Your task to perform on an android device: Do I have any events today? Image 0: 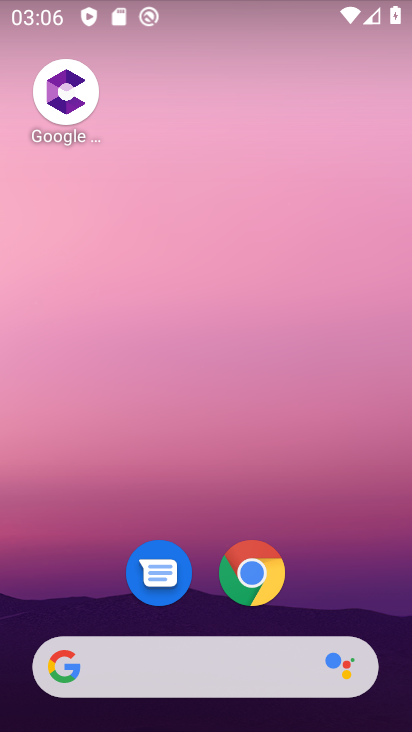
Step 0: drag from (209, 694) to (211, 217)
Your task to perform on an android device: Do I have any events today? Image 1: 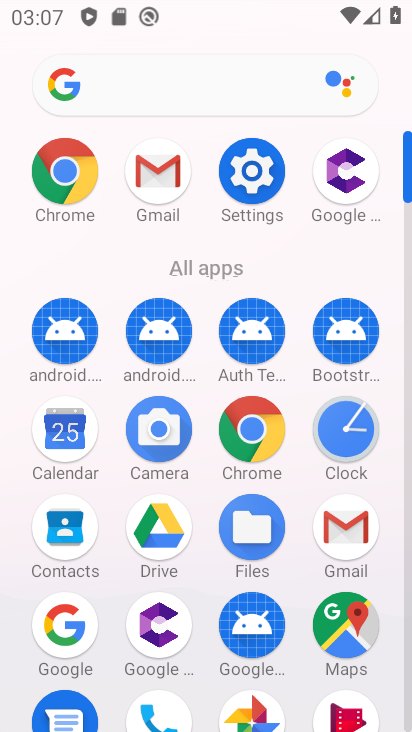
Step 1: click (59, 435)
Your task to perform on an android device: Do I have any events today? Image 2: 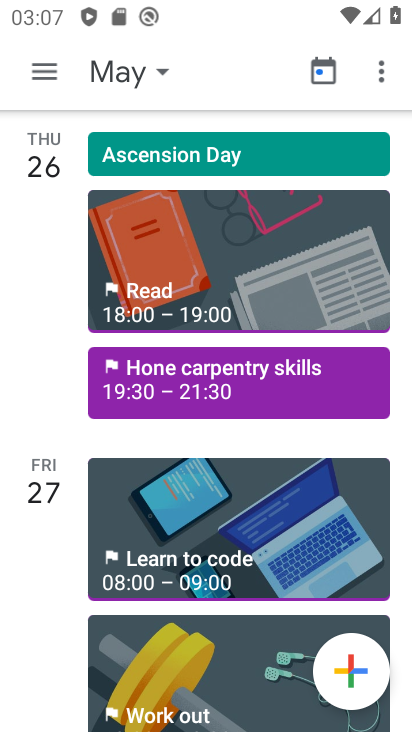
Step 2: click (45, 71)
Your task to perform on an android device: Do I have any events today? Image 3: 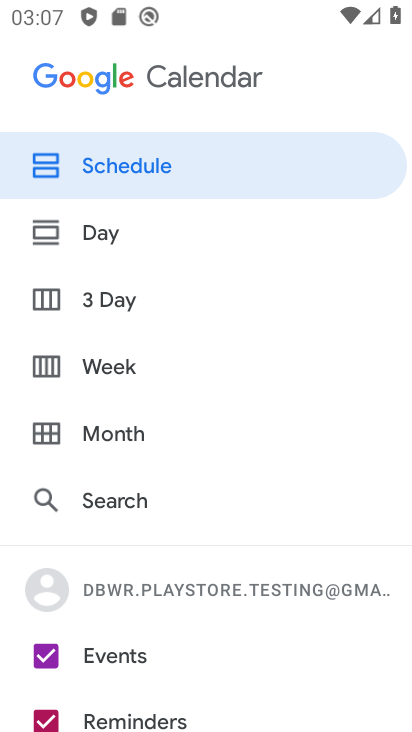
Step 3: drag from (143, 691) to (154, 239)
Your task to perform on an android device: Do I have any events today? Image 4: 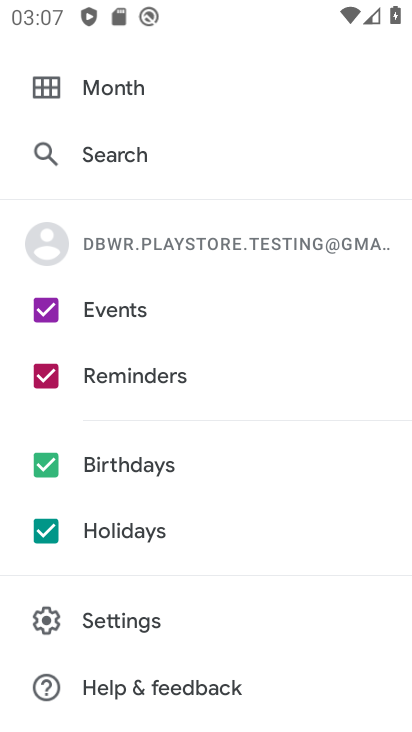
Step 4: click (42, 520)
Your task to perform on an android device: Do I have any events today? Image 5: 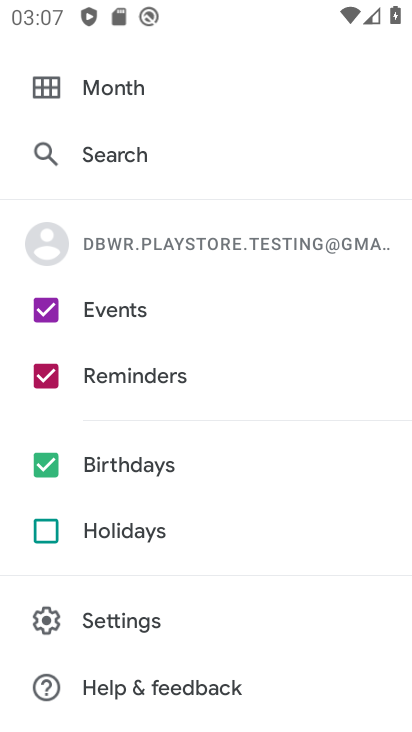
Step 5: click (44, 466)
Your task to perform on an android device: Do I have any events today? Image 6: 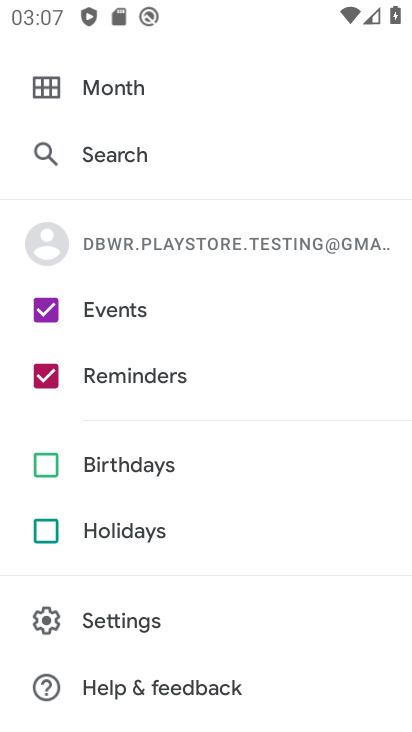
Step 6: click (40, 376)
Your task to perform on an android device: Do I have any events today? Image 7: 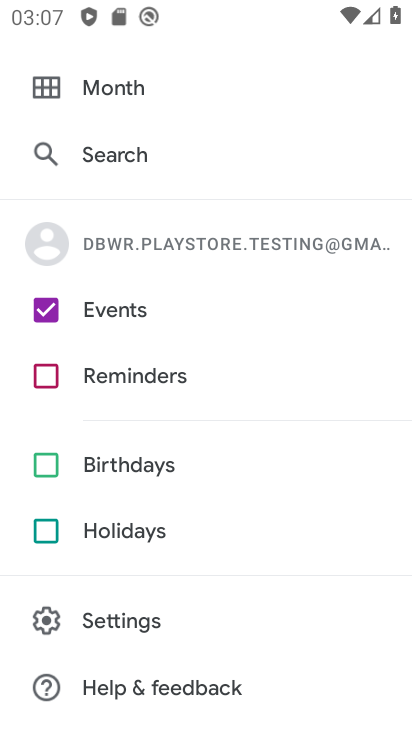
Step 7: drag from (267, 170) to (302, 589)
Your task to perform on an android device: Do I have any events today? Image 8: 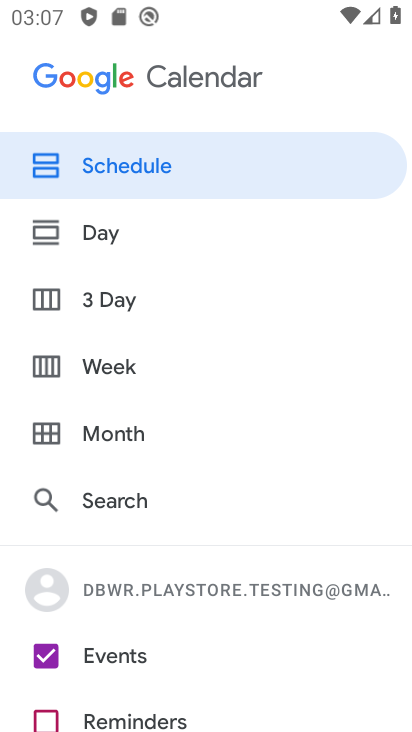
Step 8: click (144, 165)
Your task to perform on an android device: Do I have any events today? Image 9: 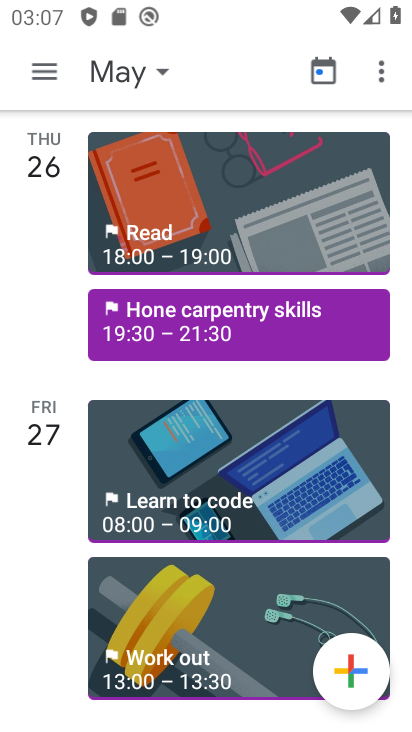
Step 9: click (47, 145)
Your task to perform on an android device: Do I have any events today? Image 10: 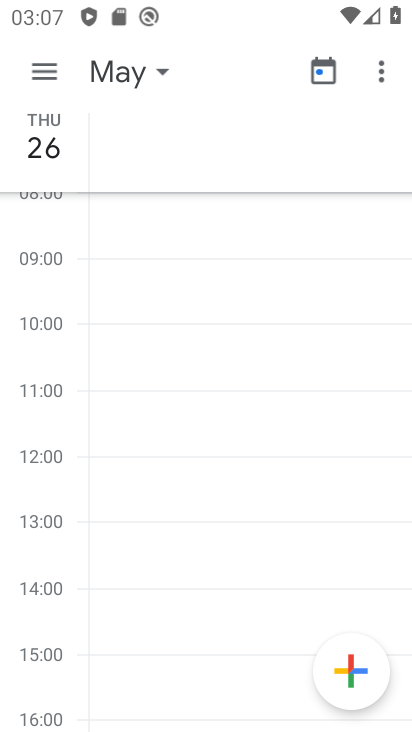
Step 10: task complete